Your task to perform on an android device: remove spam from my inbox in the gmail app Image 0: 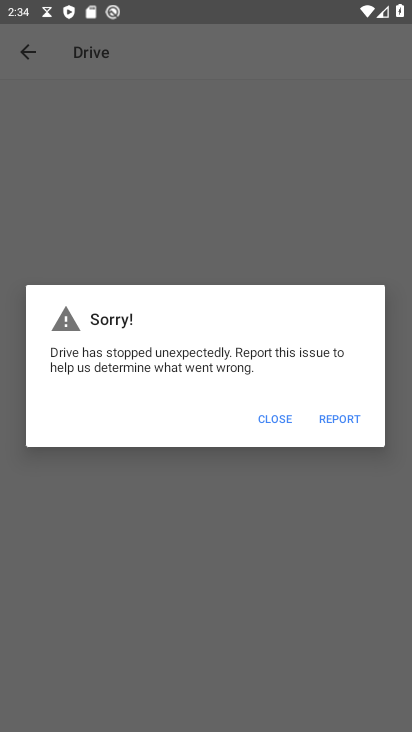
Step 0: press home button
Your task to perform on an android device: remove spam from my inbox in the gmail app Image 1: 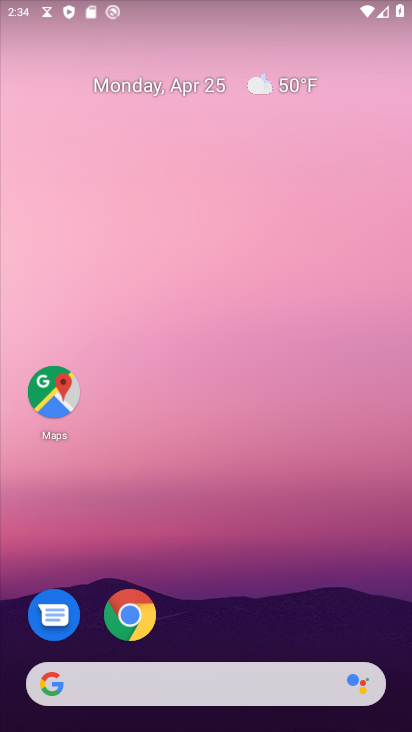
Step 1: drag from (215, 726) to (221, 160)
Your task to perform on an android device: remove spam from my inbox in the gmail app Image 2: 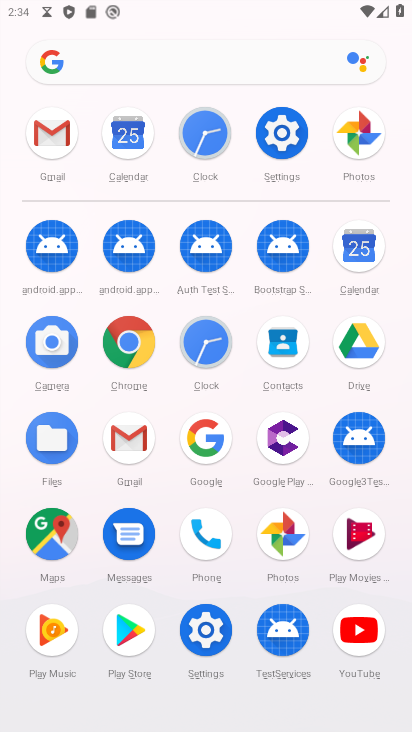
Step 2: click (134, 437)
Your task to perform on an android device: remove spam from my inbox in the gmail app Image 3: 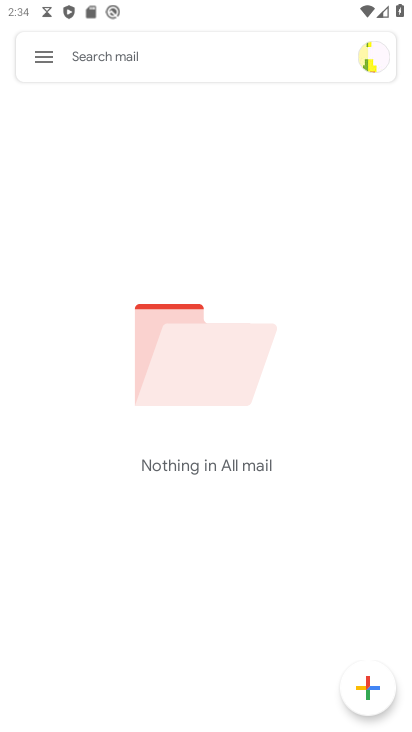
Step 3: click (43, 64)
Your task to perform on an android device: remove spam from my inbox in the gmail app Image 4: 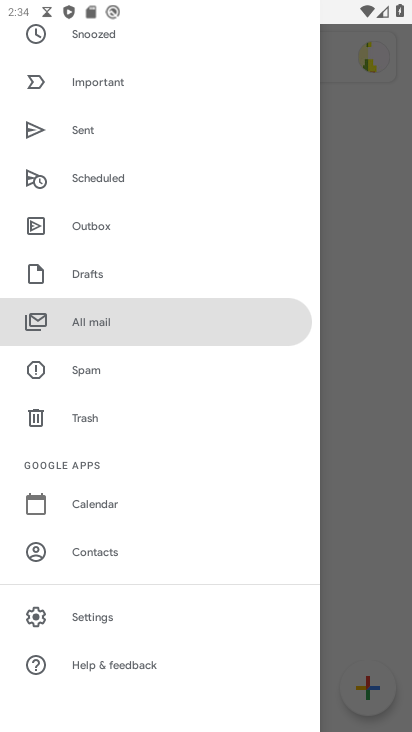
Step 4: drag from (116, 113) to (148, 611)
Your task to perform on an android device: remove spam from my inbox in the gmail app Image 5: 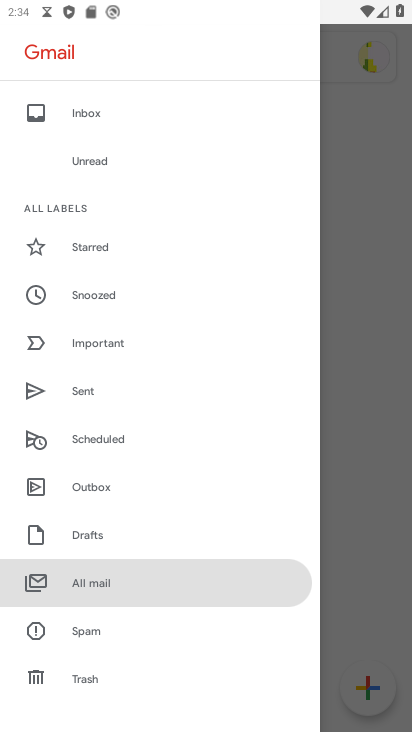
Step 5: click (98, 111)
Your task to perform on an android device: remove spam from my inbox in the gmail app Image 6: 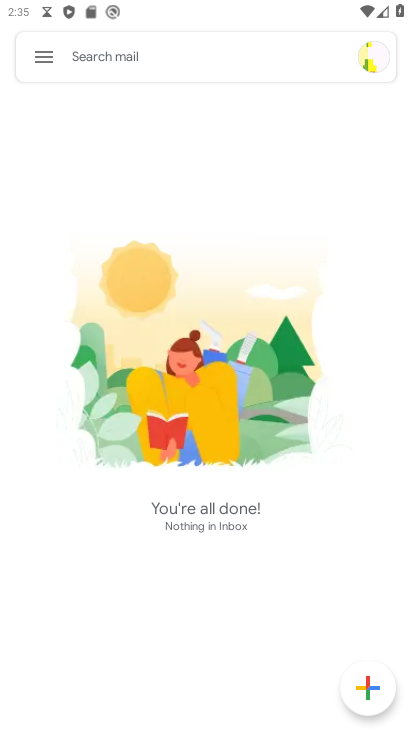
Step 6: task complete